Your task to perform on an android device: check the backup settings in the google photos Image 0: 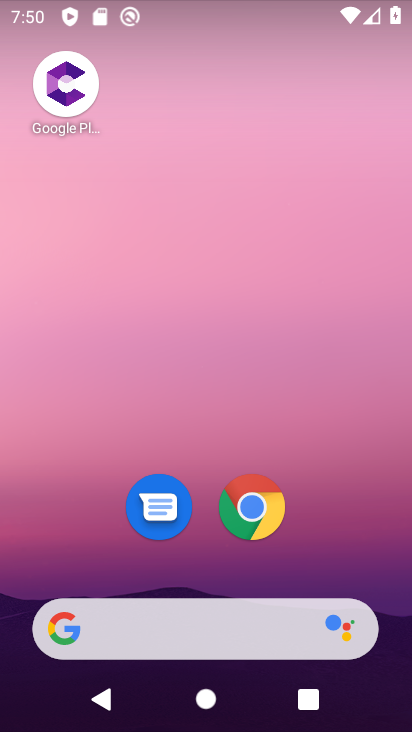
Step 0: drag from (325, 571) to (305, 2)
Your task to perform on an android device: check the backup settings in the google photos Image 1: 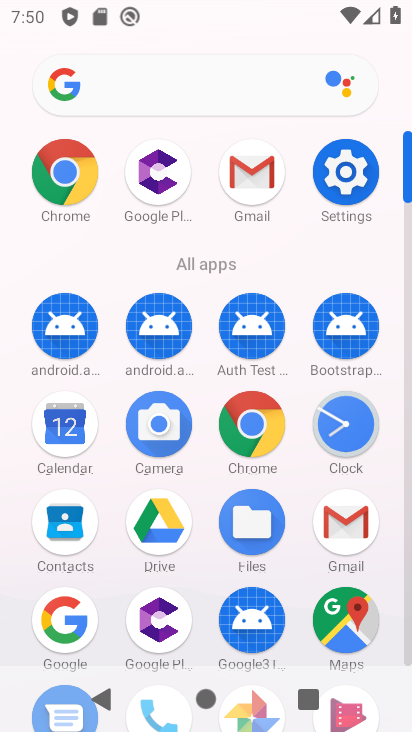
Step 1: drag from (271, 628) to (312, 442)
Your task to perform on an android device: check the backup settings in the google photos Image 2: 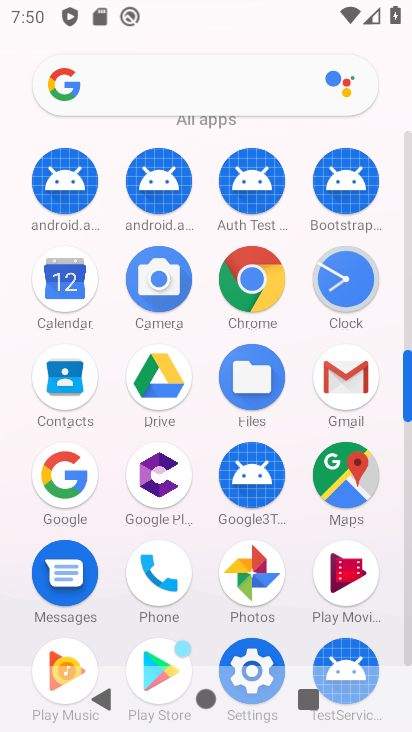
Step 2: click (255, 579)
Your task to perform on an android device: check the backup settings in the google photos Image 3: 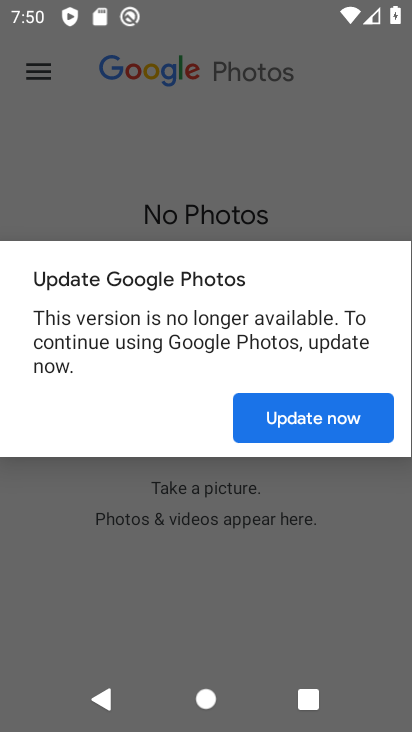
Step 3: click (337, 421)
Your task to perform on an android device: check the backup settings in the google photos Image 4: 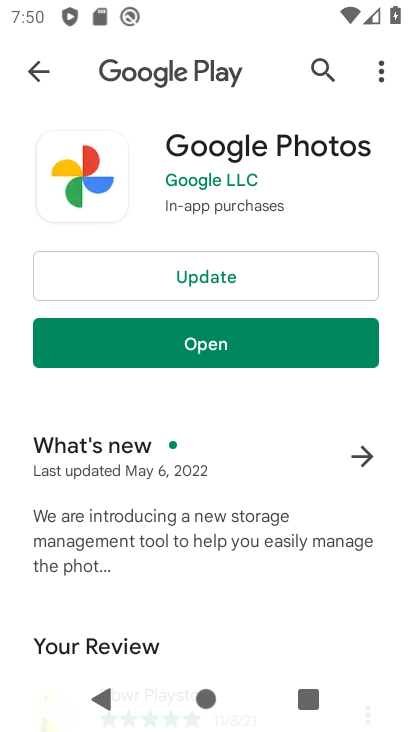
Step 4: click (283, 255)
Your task to perform on an android device: check the backup settings in the google photos Image 5: 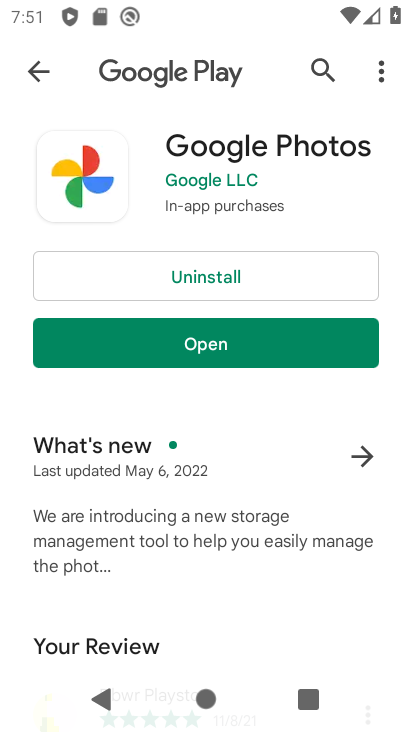
Step 5: click (270, 362)
Your task to perform on an android device: check the backup settings in the google photos Image 6: 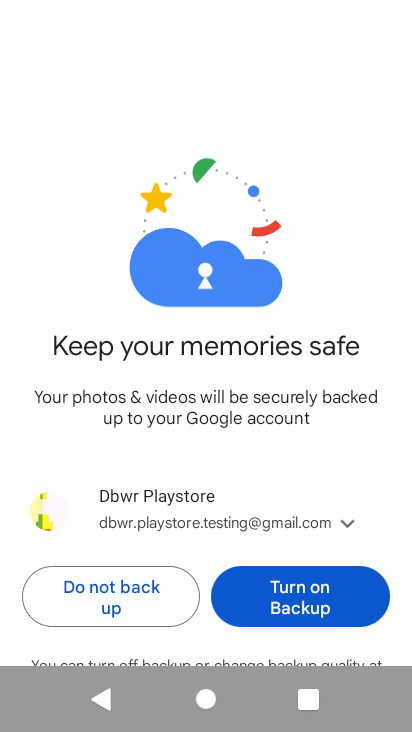
Step 6: drag from (224, 495) to (282, 114)
Your task to perform on an android device: check the backup settings in the google photos Image 7: 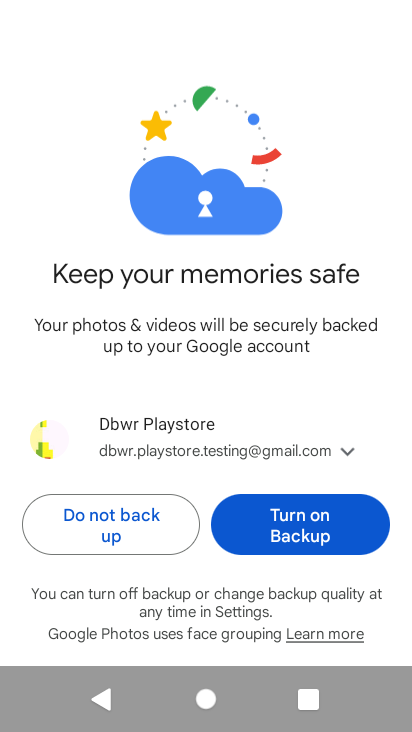
Step 7: click (273, 533)
Your task to perform on an android device: check the backup settings in the google photos Image 8: 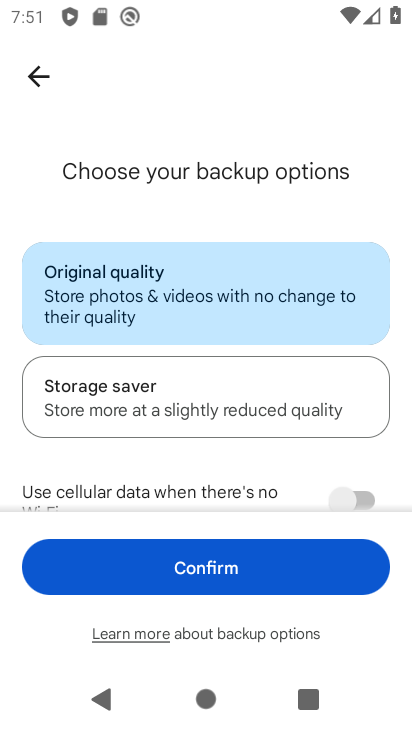
Step 8: click (251, 604)
Your task to perform on an android device: check the backup settings in the google photos Image 9: 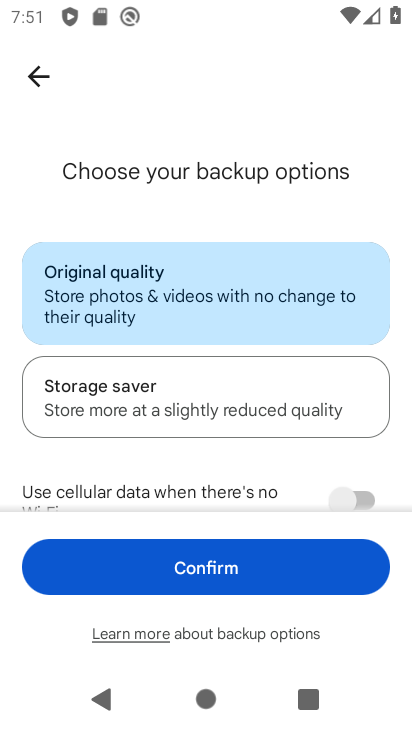
Step 9: click (238, 582)
Your task to perform on an android device: check the backup settings in the google photos Image 10: 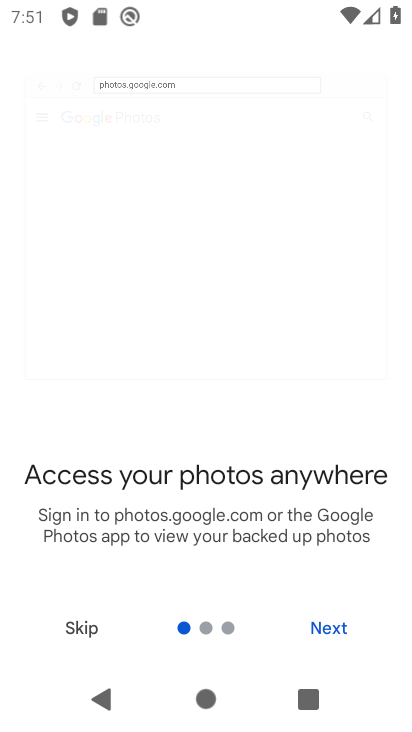
Step 10: click (320, 632)
Your task to perform on an android device: check the backup settings in the google photos Image 11: 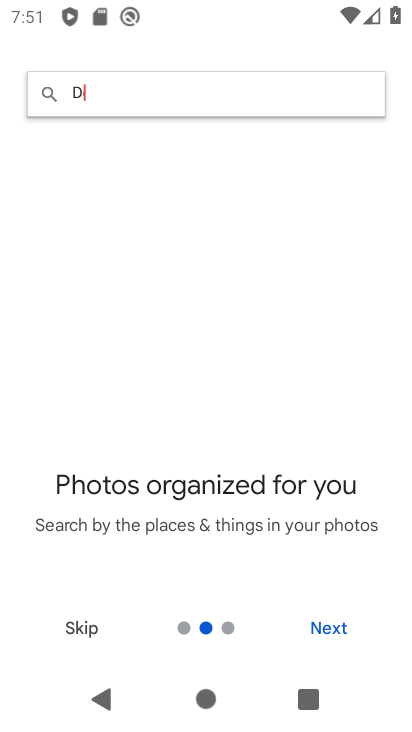
Step 11: click (320, 632)
Your task to perform on an android device: check the backup settings in the google photos Image 12: 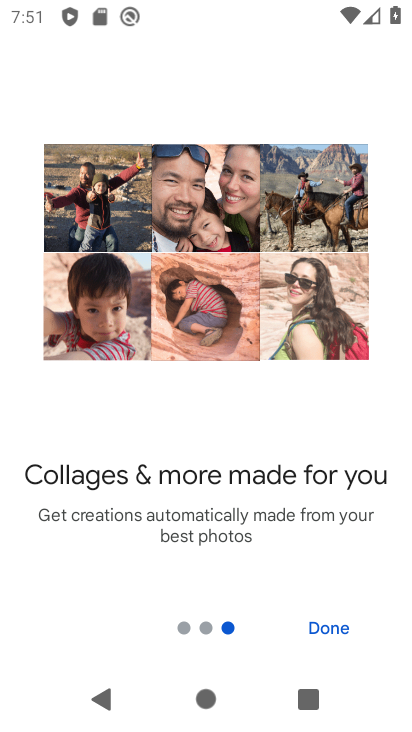
Step 12: click (320, 632)
Your task to perform on an android device: check the backup settings in the google photos Image 13: 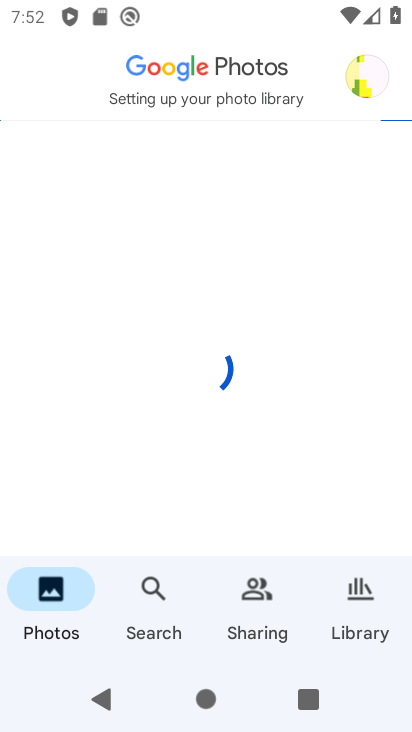
Step 13: click (362, 85)
Your task to perform on an android device: check the backup settings in the google photos Image 14: 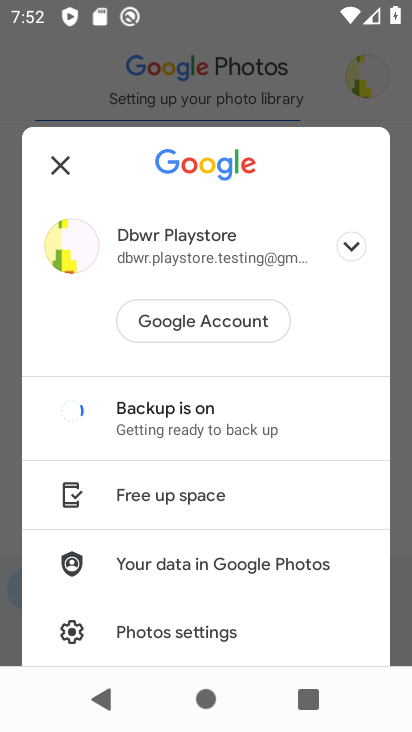
Step 14: click (205, 632)
Your task to perform on an android device: check the backup settings in the google photos Image 15: 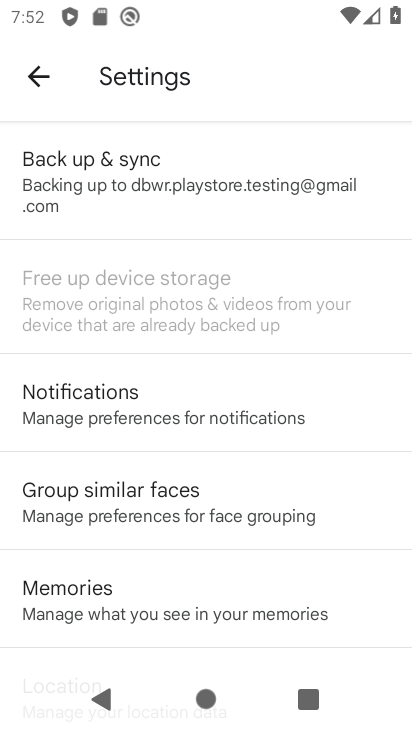
Step 15: click (165, 175)
Your task to perform on an android device: check the backup settings in the google photos Image 16: 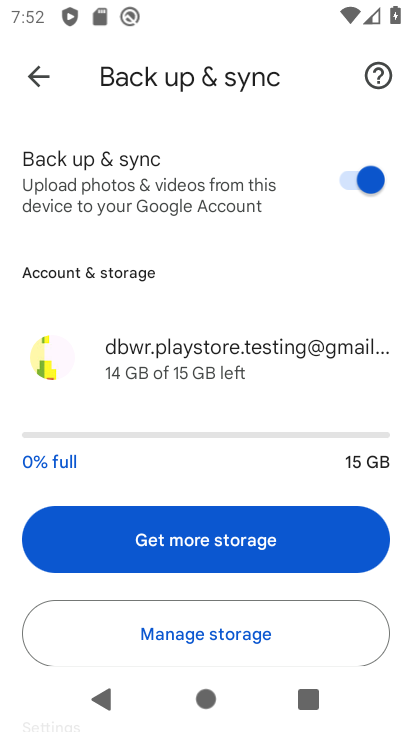
Step 16: task complete